Your task to perform on an android device: Play the last video I watched on Youtube Image 0: 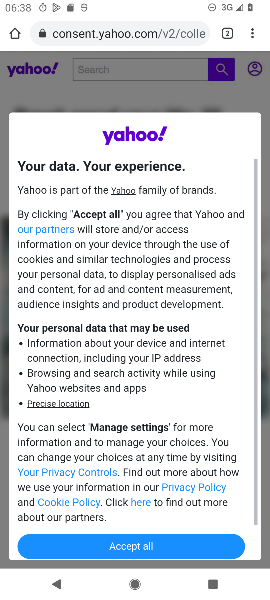
Step 0: press home button
Your task to perform on an android device: Play the last video I watched on Youtube Image 1: 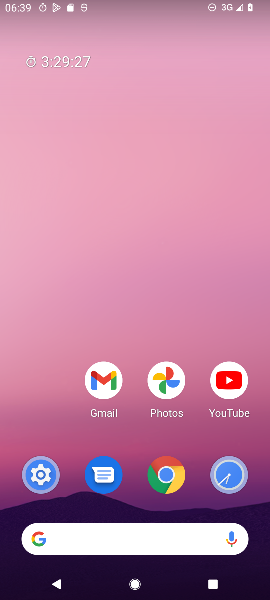
Step 1: drag from (65, 456) to (62, 213)
Your task to perform on an android device: Play the last video I watched on Youtube Image 2: 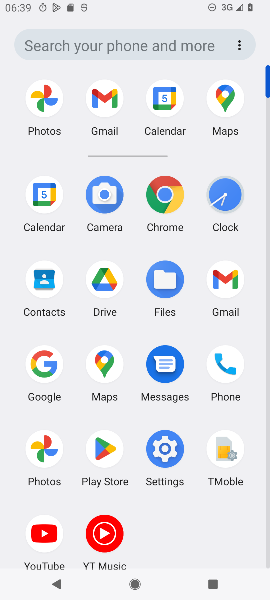
Step 2: click (48, 541)
Your task to perform on an android device: Play the last video I watched on Youtube Image 3: 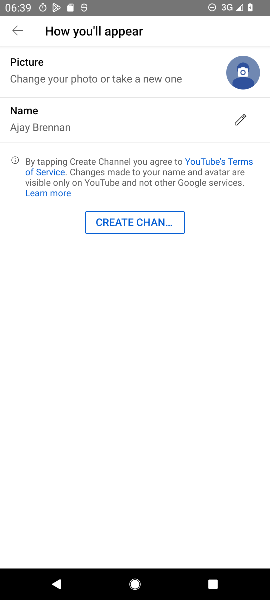
Step 3: press back button
Your task to perform on an android device: Play the last video I watched on Youtube Image 4: 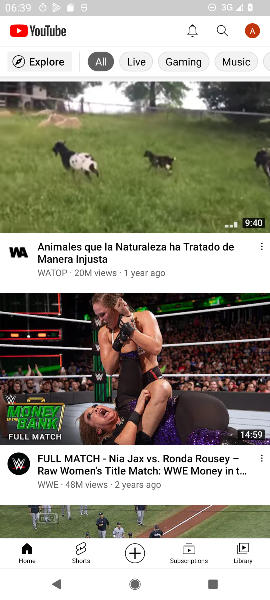
Step 4: click (241, 553)
Your task to perform on an android device: Play the last video I watched on Youtube Image 5: 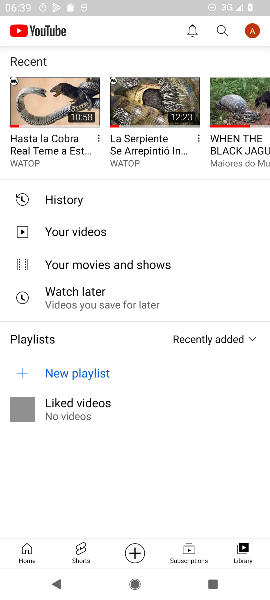
Step 5: click (47, 104)
Your task to perform on an android device: Play the last video I watched on Youtube Image 6: 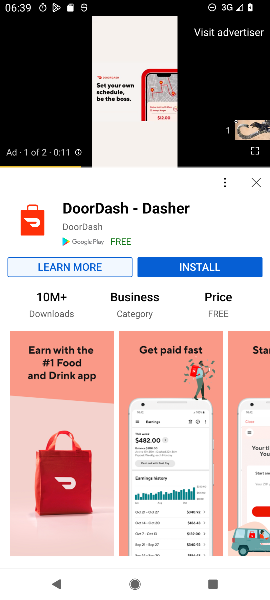
Step 6: task complete